Your task to perform on an android device: Go to accessibility settings Image 0: 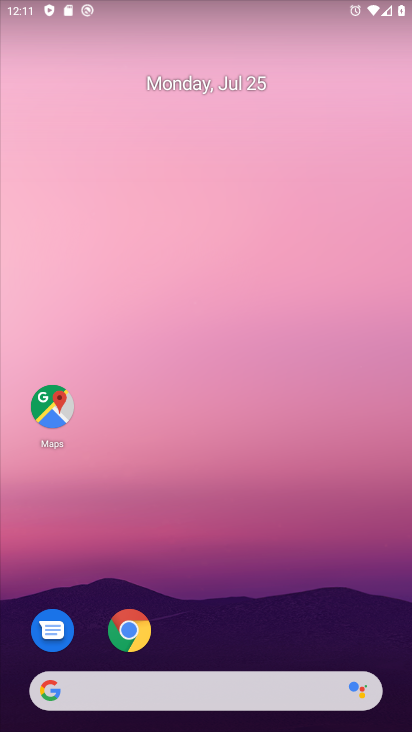
Step 0: click (158, 12)
Your task to perform on an android device: Go to accessibility settings Image 1: 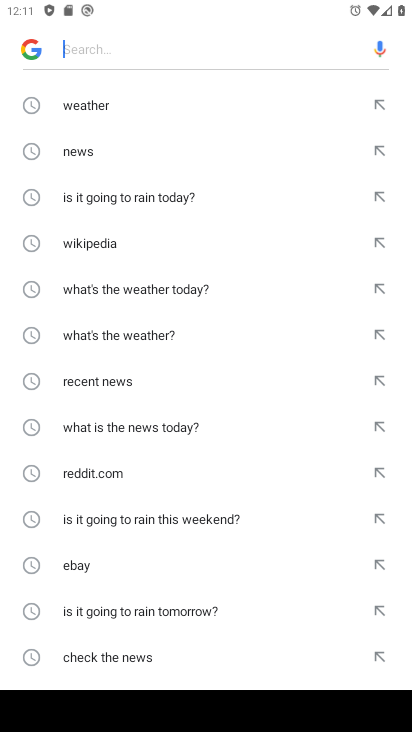
Step 1: press back button
Your task to perform on an android device: Go to accessibility settings Image 2: 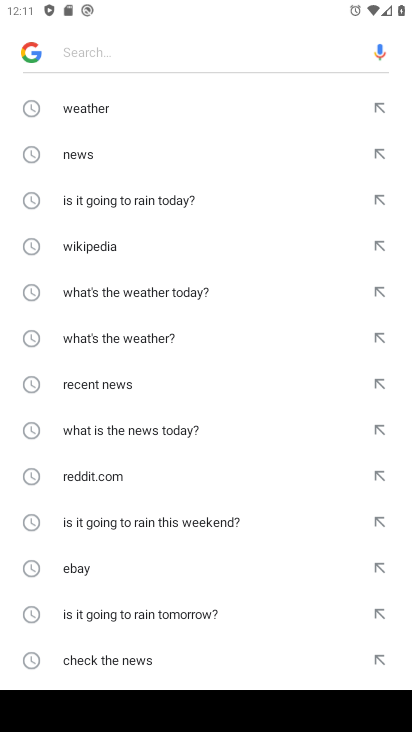
Step 2: press back button
Your task to perform on an android device: Go to accessibility settings Image 3: 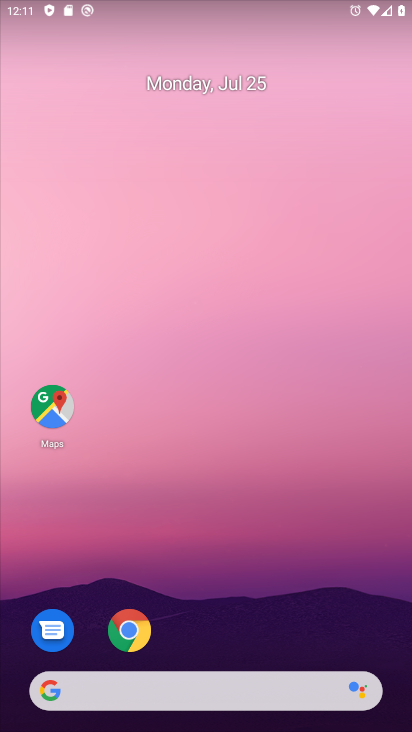
Step 3: drag from (225, 593) to (177, 132)
Your task to perform on an android device: Go to accessibility settings Image 4: 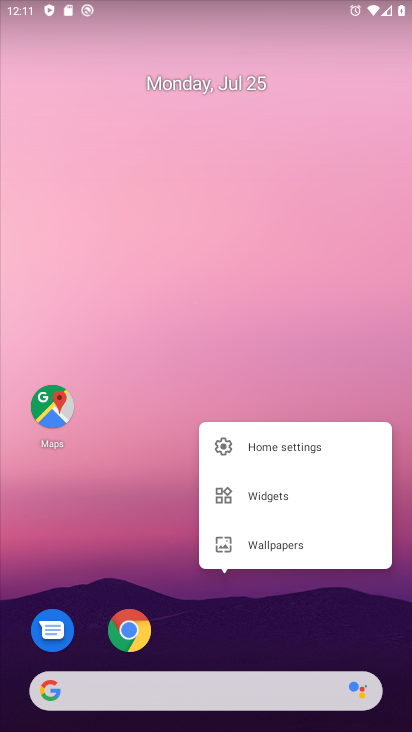
Step 4: drag from (151, 519) to (129, 95)
Your task to perform on an android device: Go to accessibility settings Image 5: 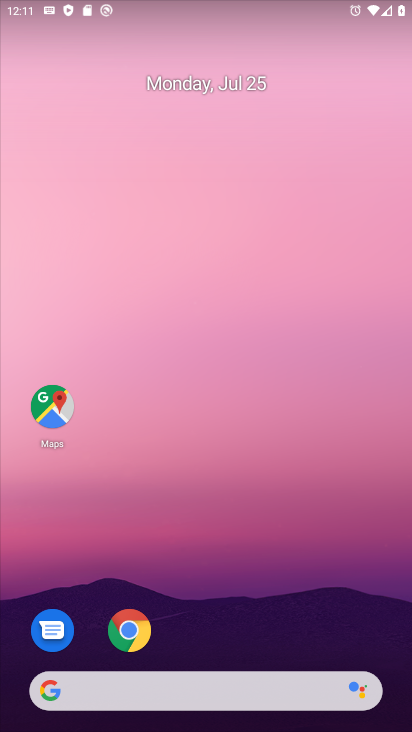
Step 5: drag from (123, 356) to (126, 21)
Your task to perform on an android device: Go to accessibility settings Image 6: 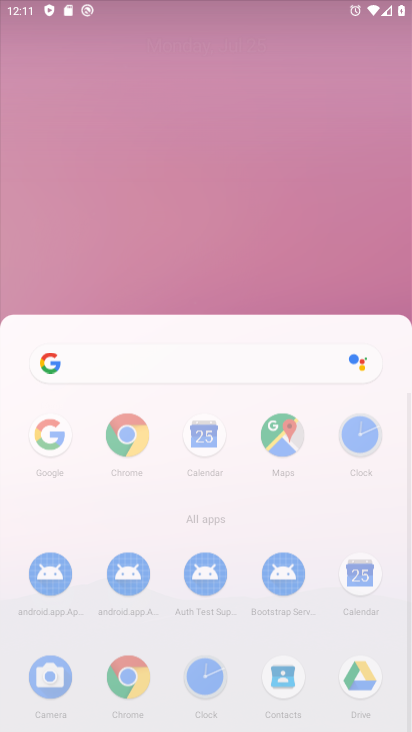
Step 6: drag from (133, 240) to (159, 82)
Your task to perform on an android device: Go to accessibility settings Image 7: 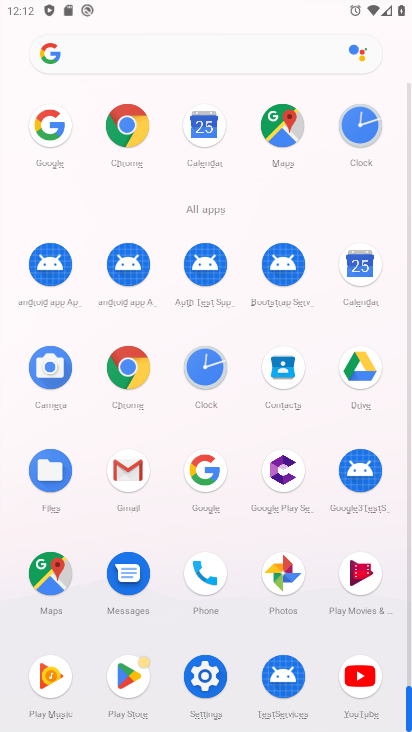
Step 7: click (205, 680)
Your task to perform on an android device: Go to accessibility settings Image 8: 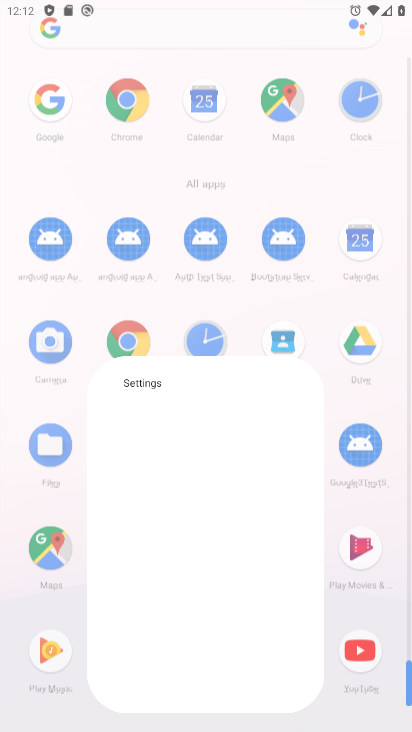
Step 8: click (206, 680)
Your task to perform on an android device: Go to accessibility settings Image 9: 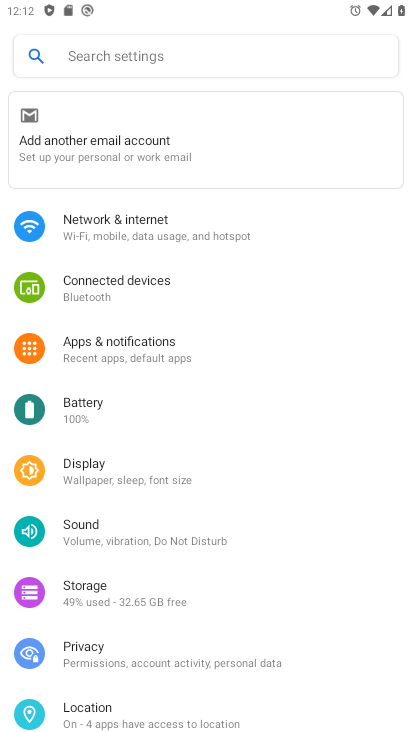
Step 9: drag from (136, 516) to (125, 134)
Your task to perform on an android device: Go to accessibility settings Image 10: 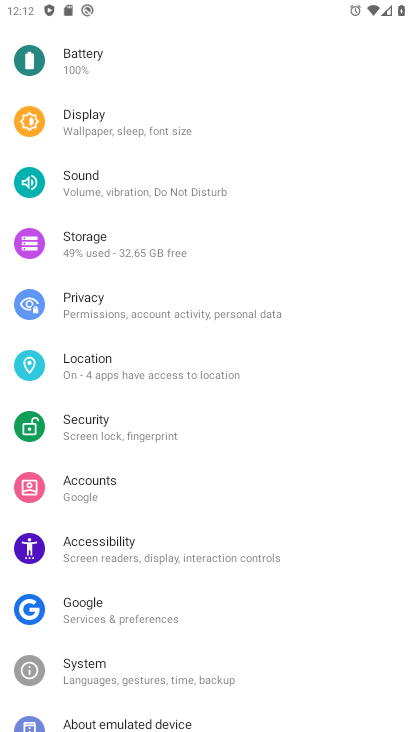
Step 10: drag from (140, 514) to (120, 252)
Your task to perform on an android device: Go to accessibility settings Image 11: 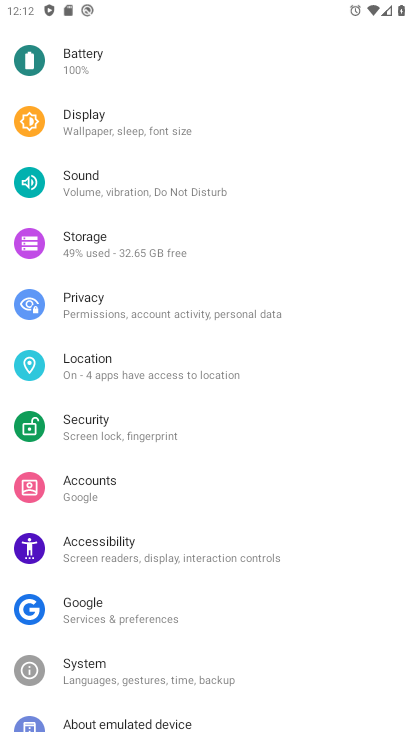
Step 11: click (97, 546)
Your task to perform on an android device: Go to accessibility settings Image 12: 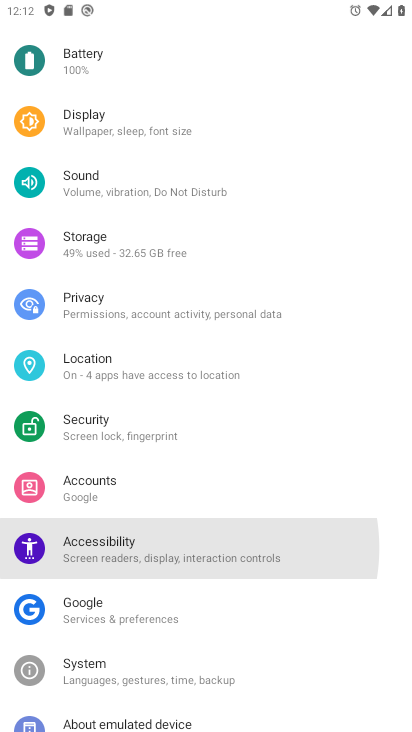
Step 12: click (97, 546)
Your task to perform on an android device: Go to accessibility settings Image 13: 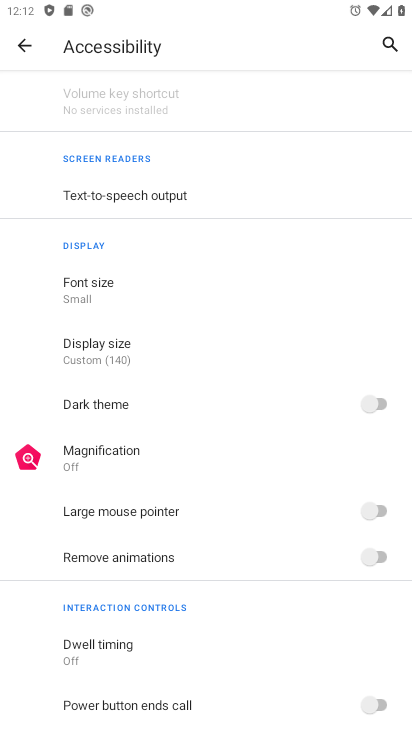
Step 13: task complete